Your task to perform on an android device: delete location history Image 0: 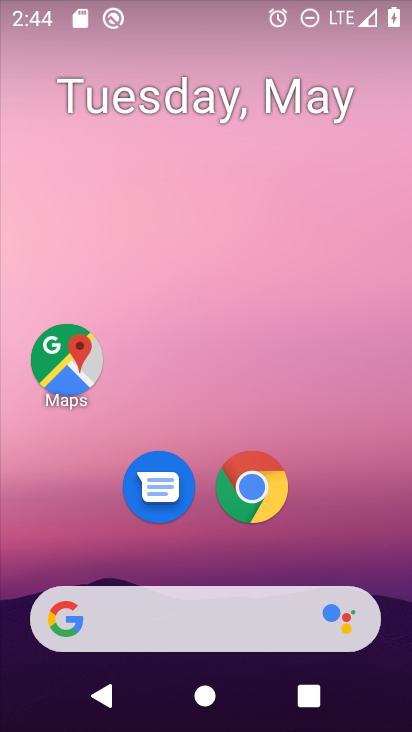
Step 0: drag from (15, 712) to (245, 179)
Your task to perform on an android device: delete location history Image 1: 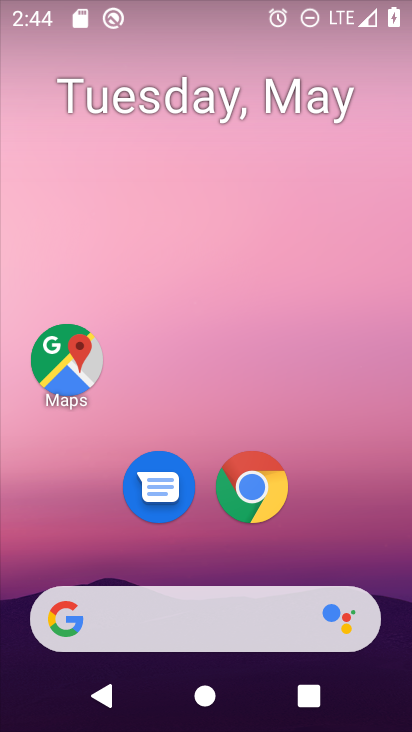
Step 1: drag from (78, 447) to (224, 159)
Your task to perform on an android device: delete location history Image 2: 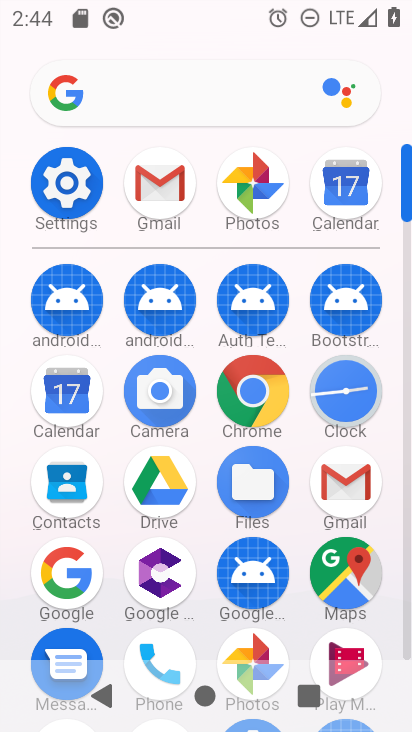
Step 2: click (58, 199)
Your task to perform on an android device: delete location history Image 3: 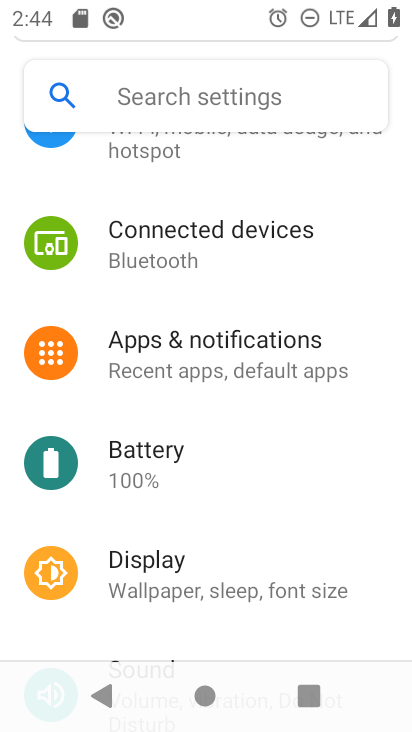
Step 3: drag from (144, 613) to (250, 297)
Your task to perform on an android device: delete location history Image 4: 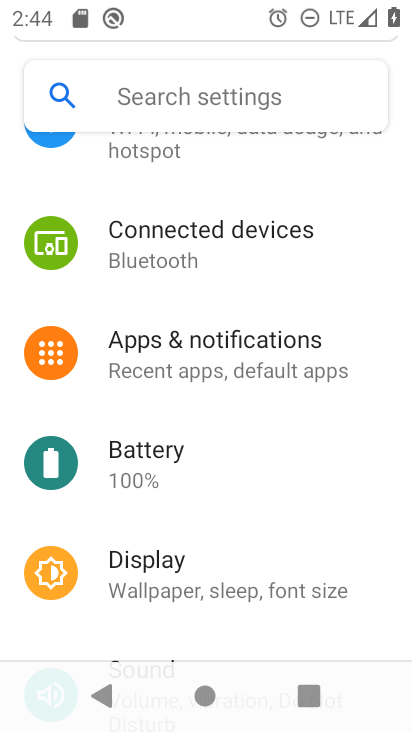
Step 4: drag from (4, 672) to (236, 270)
Your task to perform on an android device: delete location history Image 5: 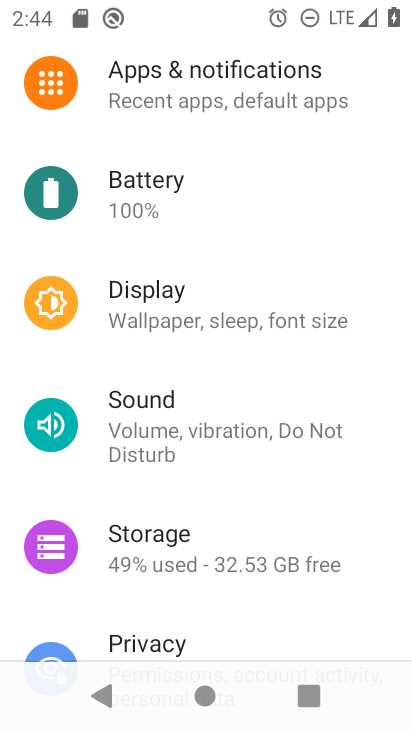
Step 5: drag from (19, 573) to (181, 281)
Your task to perform on an android device: delete location history Image 6: 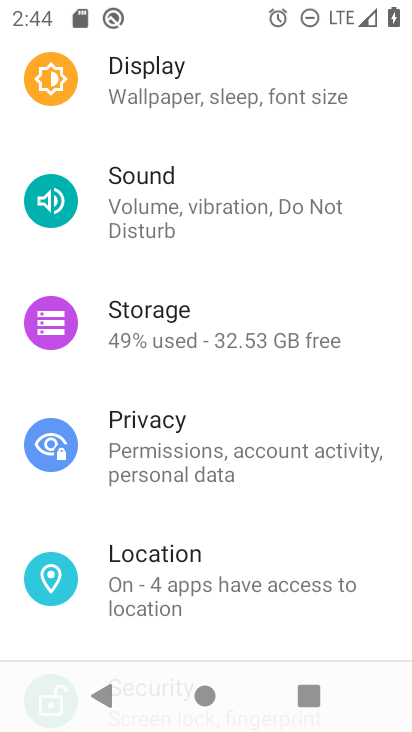
Step 6: click (132, 584)
Your task to perform on an android device: delete location history Image 7: 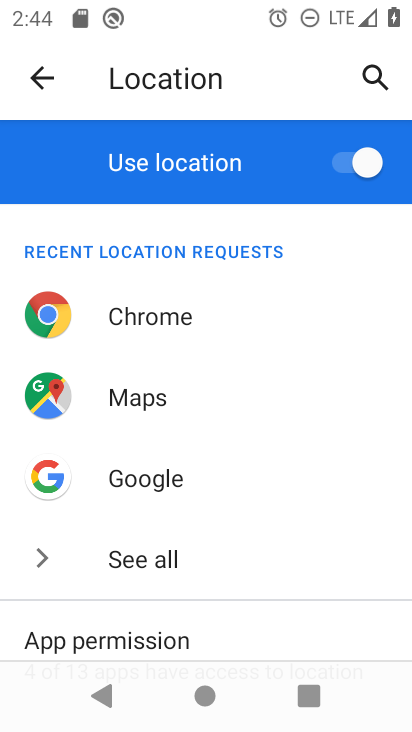
Step 7: drag from (110, 583) to (237, 274)
Your task to perform on an android device: delete location history Image 8: 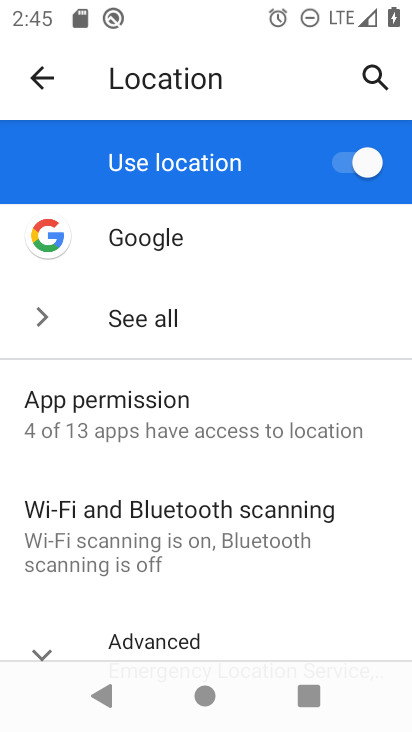
Step 8: drag from (26, 637) to (243, 335)
Your task to perform on an android device: delete location history Image 9: 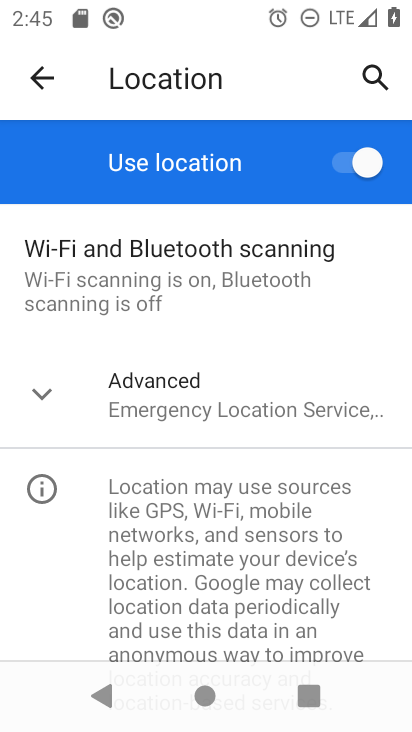
Step 9: click (225, 414)
Your task to perform on an android device: delete location history Image 10: 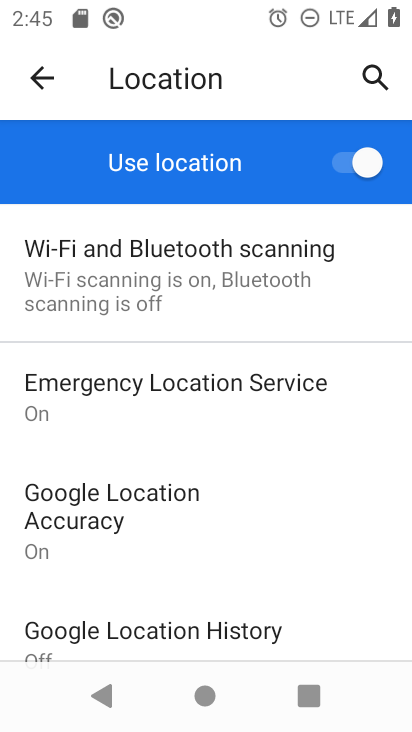
Step 10: click (65, 629)
Your task to perform on an android device: delete location history Image 11: 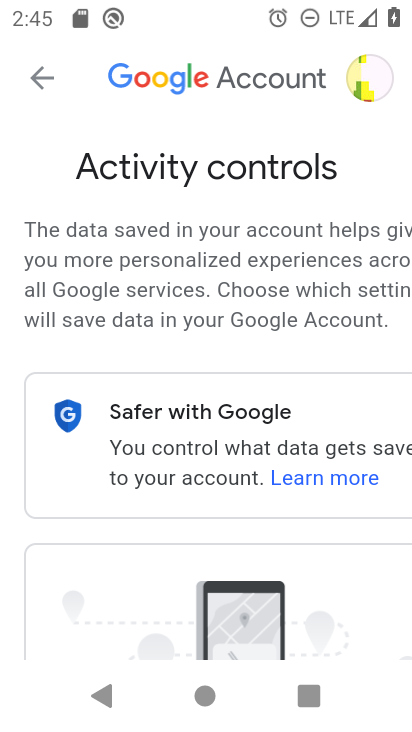
Step 11: drag from (24, 537) to (251, 167)
Your task to perform on an android device: delete location history Image 12: 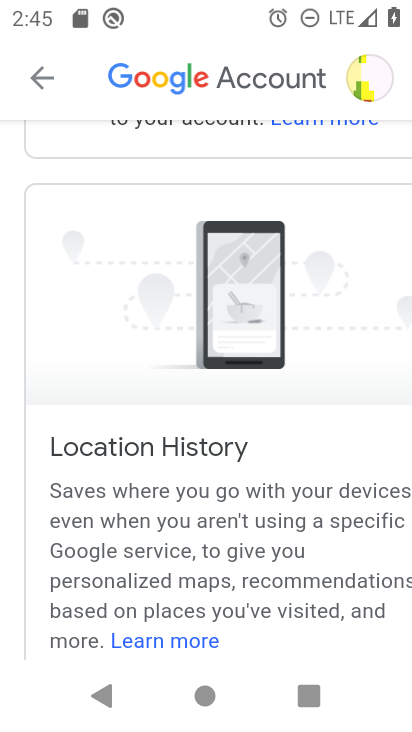
Step 12: drag from (46, 655) to (263, 276)
Your task to perform on an android device: delete location history Image 13: 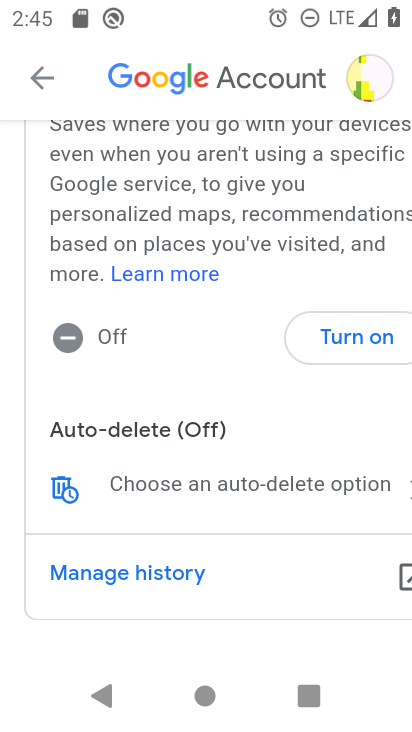
Step 13: click (155, 484)
Your task to perform on an android device: delete location history Image 14: 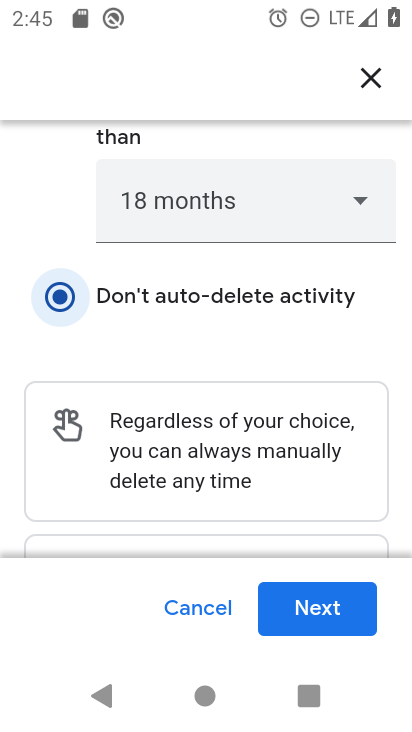
Step 14: click (289, 609)
Your task to perform on an android device: delete location history Image 15: 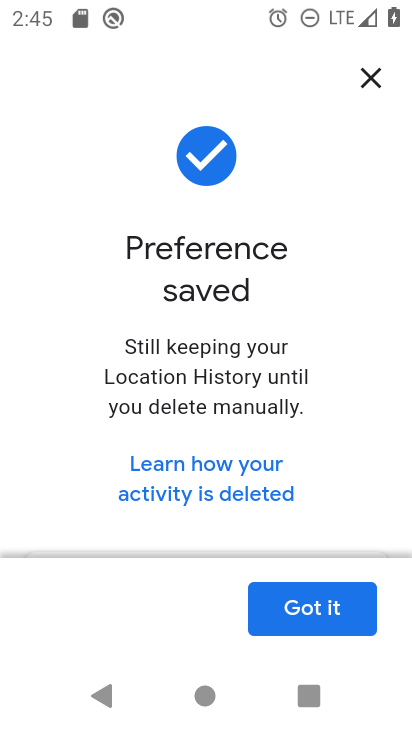
Step 15: click (318, 626)
Your task to perform on an android device: delete location history Image 16: 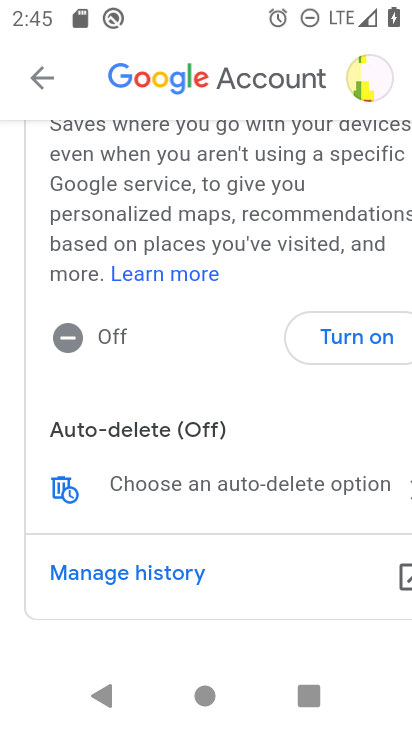
Step 16: task complete